Your task to perform on an android device: Open Google Chrome Image 0: 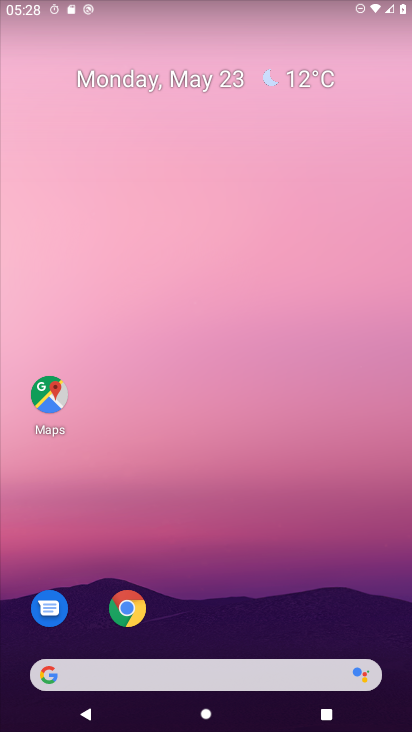
Step 0: click (133, 613)
Your task to perform on an android device: Open Google Chrome Image 1: 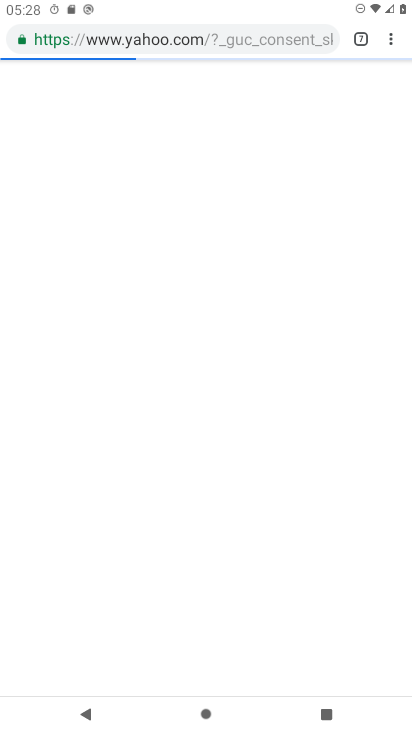
Step 1: task complete